Your task to perform on an android device: Go to calendar. Show me events next week Image 0: 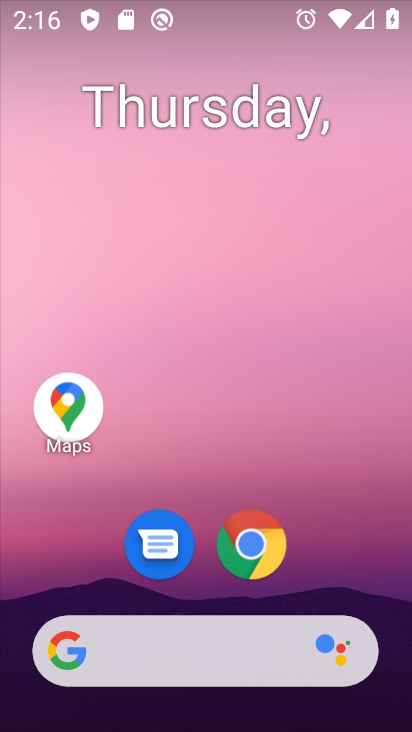
Step 0: drag from (346, 548) to (125, 208)
Your task to perform on an android device: Go to calendar. Show me events next week Image 1: 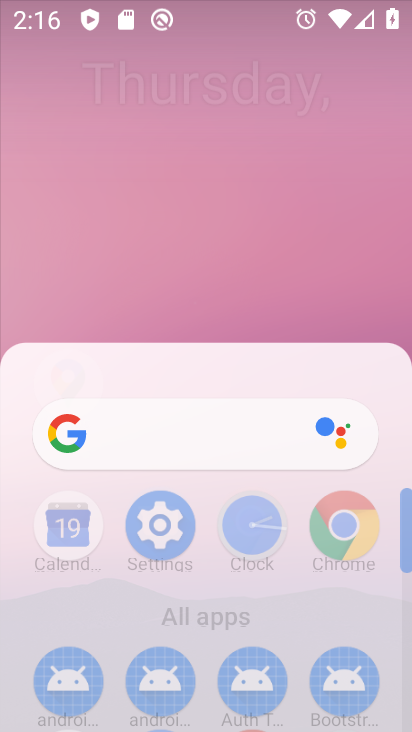
Step 1: click (70, 85)
Your task to perform on an android device: Go to calendar. Show me events next week Image 2: 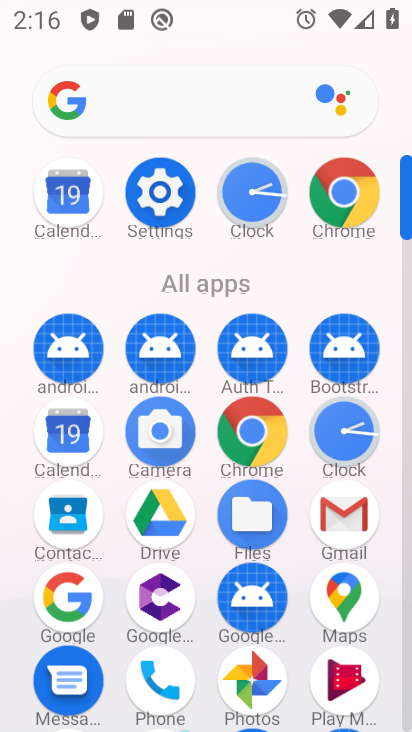
Step 2: click (73, 205)
Your task to perform on an android device: Go to calendar. Show me events next week Image 3: 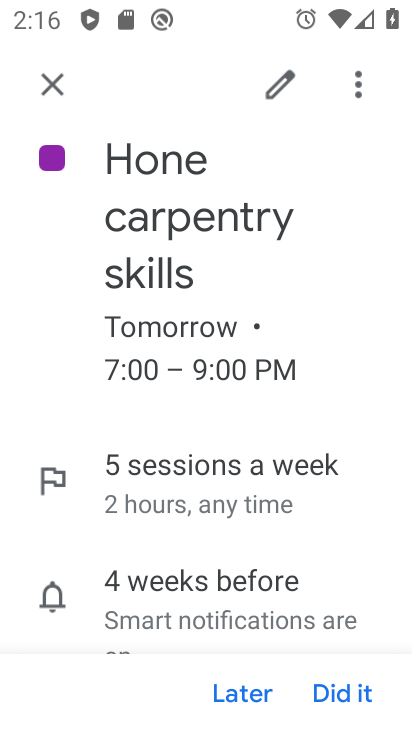
Step 3: click (60, 86)
Your task to perform on an android device: Go to calendar. Show me events next week Image 4: 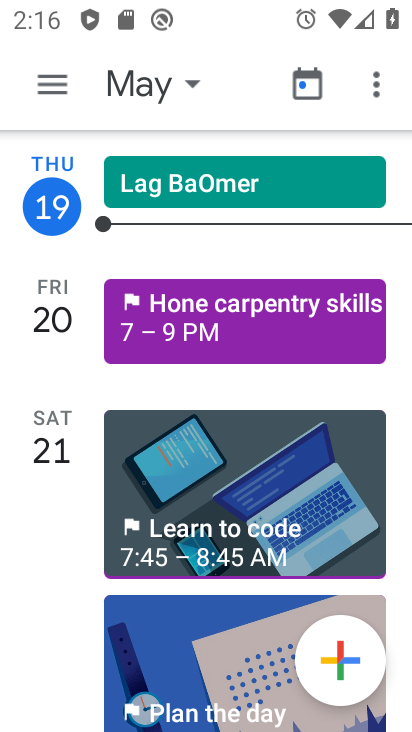
Step 4: click (121, 89)
Your task to perform on an android device: Go to calendar. Show me events next week Image 5: 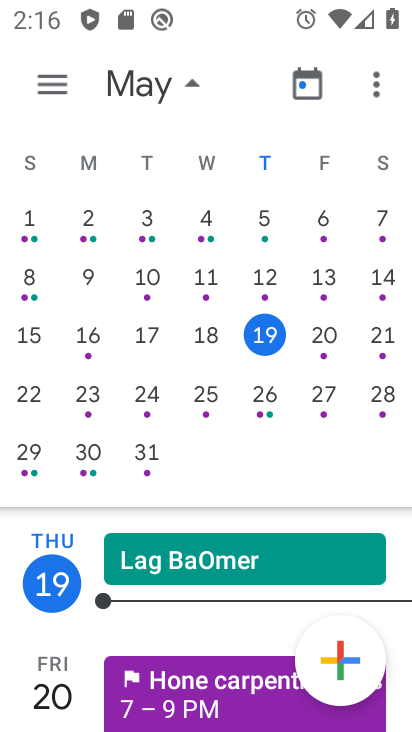
Step 5: click (30, 397)
Your task to perform on an android device: Go to calendar. Show me events next week Image 6: 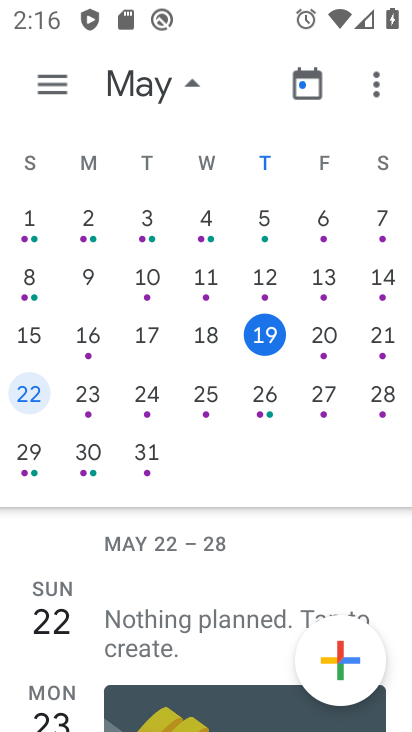
Step 6: click (133, 103)
Your task to perform on an android device: Go to calendar. Show me events next week Image 7: 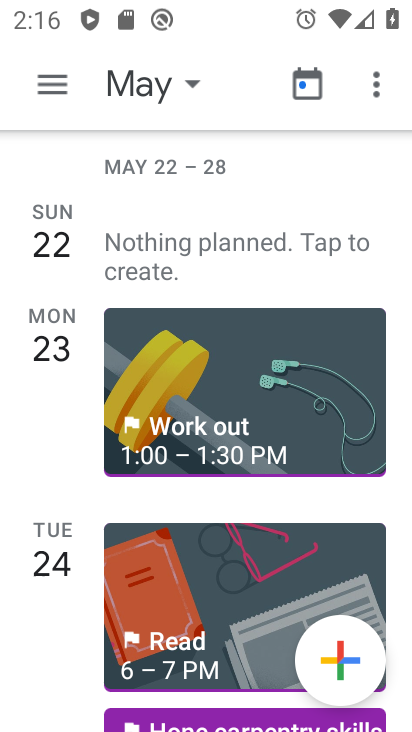
Step 7: click (47, 92)
Your task to perform on an android device: Go to calendar. Show me events next week Image 8: 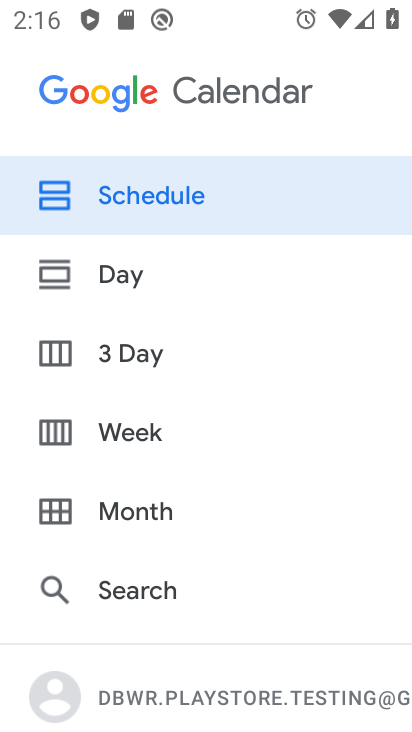
Step 8: click (80, 432)
Your task to perform on an android device: Go to calendar. Show me events next week Image 9: 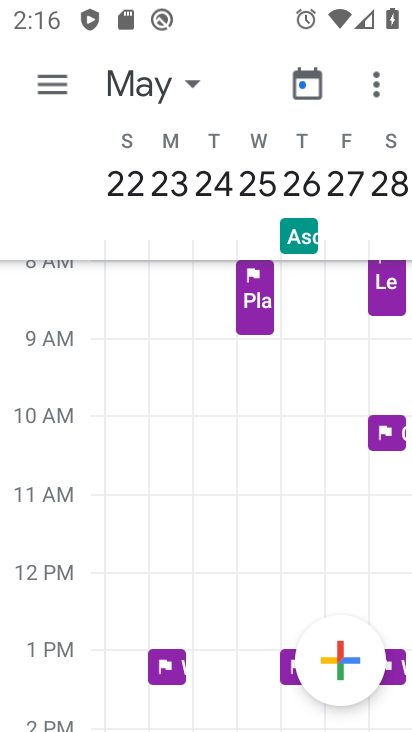
Step 9: task complete